Your task to perform on an android device: Open calendar and show me the third week of next month Image 0: 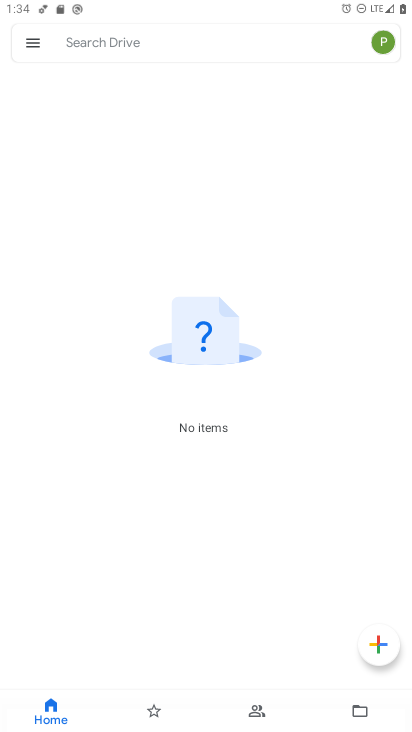
Step 0: press home button
Your task to perform on an android device: Open calendar and show me the third week of next month Image 1: 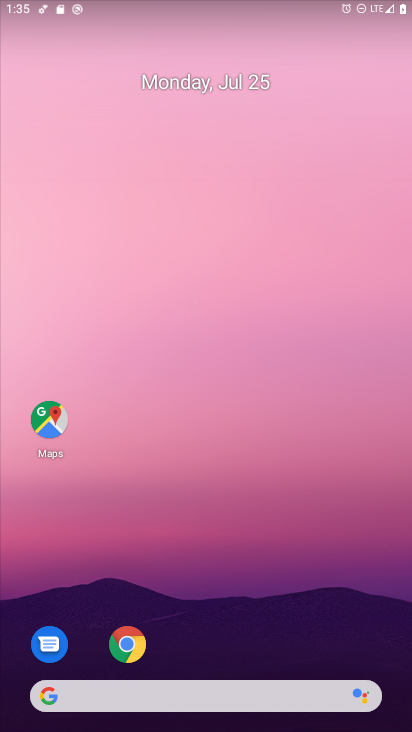
Step 1: drag from (281, 624) to (356, 27)
Your task to perform on an android device: Open calendar and show me the third week of next month Image 2: 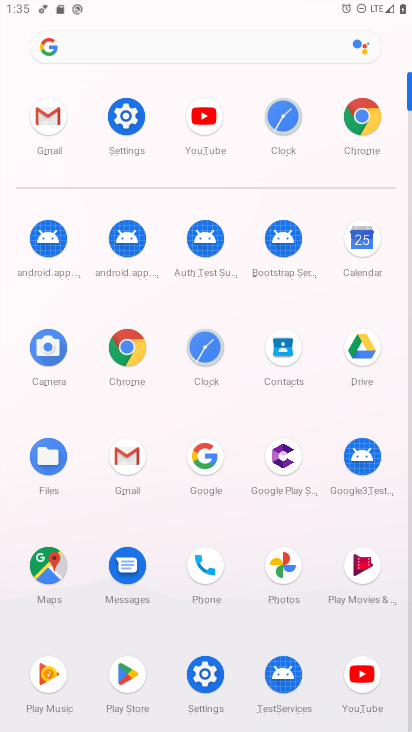
Step 2: click (365, 246)
Your task to perform on an android device: Open calendar and show me the third week of next month Image 3: 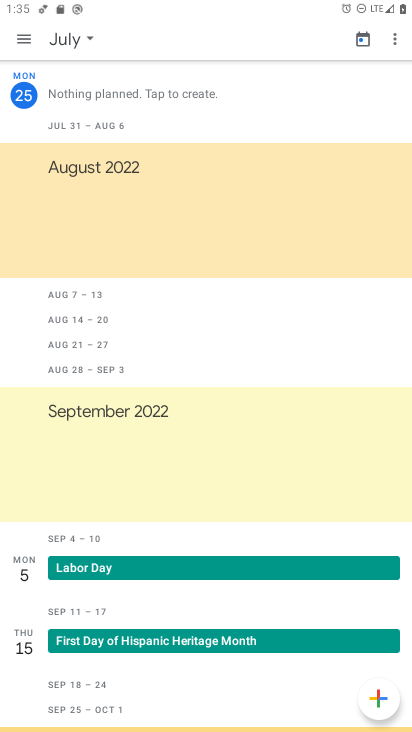
Step 3: click (76, 52)
Your task to perform on an android device: Open calendar and show me the third week of next month Image 4: 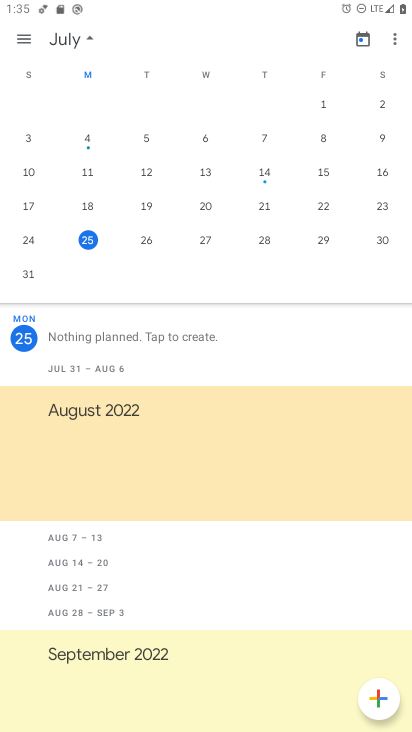
Step 4: drag from (401, 214) to (81, 189)
Your task to perform on an android device: Open calendar and show me the third week of next month Image 5: 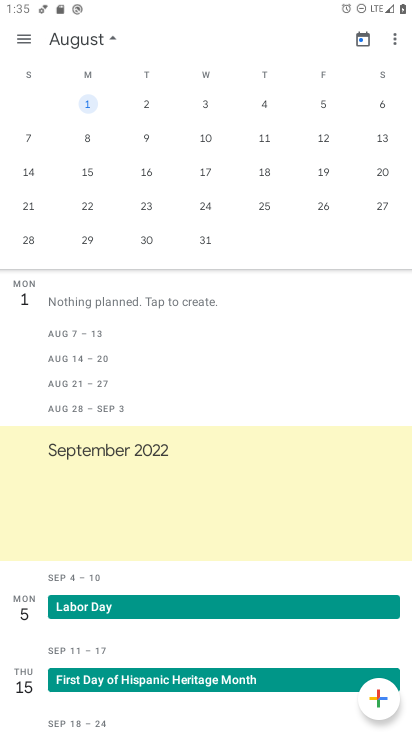
Step 5: click (28, 180)
Your task to perform on an android device: Open calendar and show me the third week of next month Image 6: 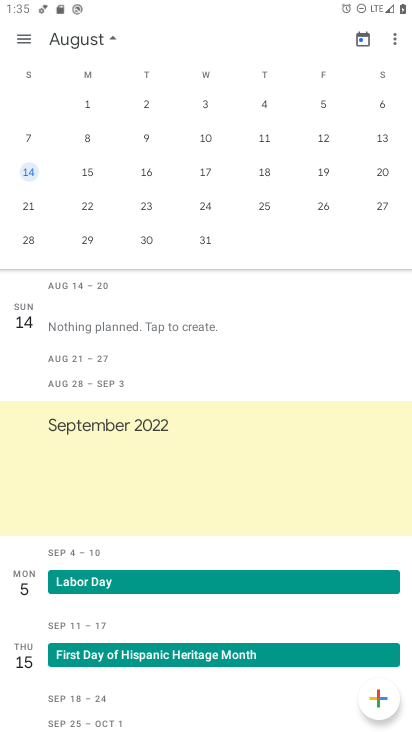
Step 6: task complete